Your task to perform on an android device: check out phone information Image 0: 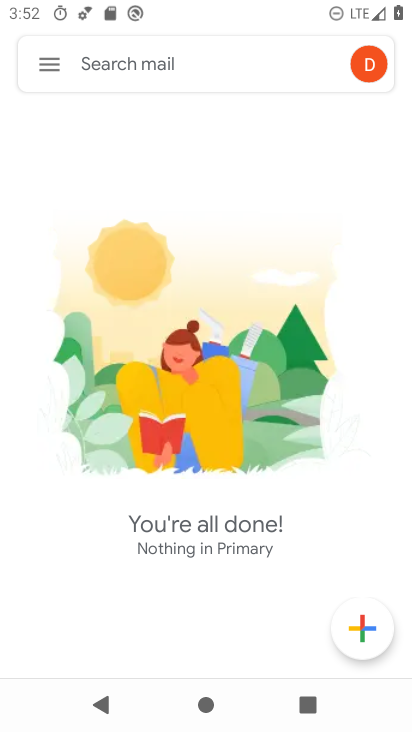
Step 0: press home button
Your task to perform on an android device: check out phone information Image 1: 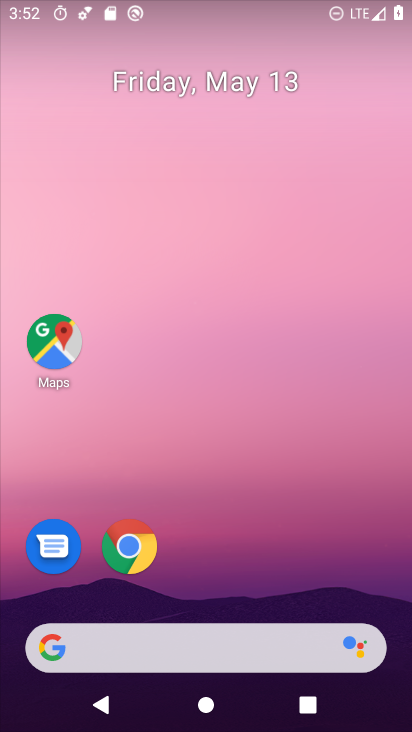
Step 1: drag from (240, 633) to (254, 215)
Your task to perform on an android device: check out phone information Image 2: 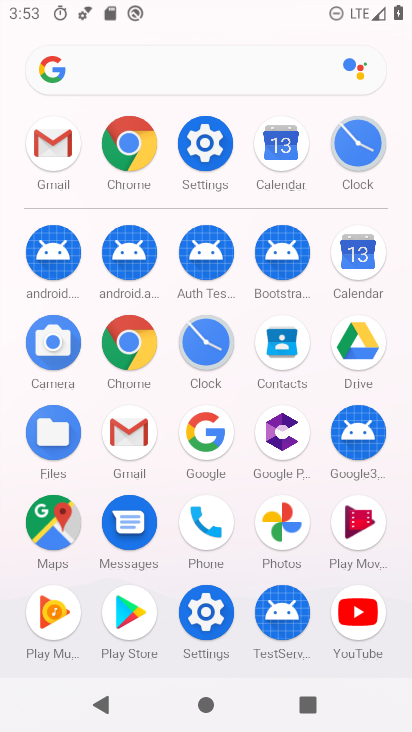
Step 2: click (216, 171)
Your task to perform on an android device: check out phone information Image 3: 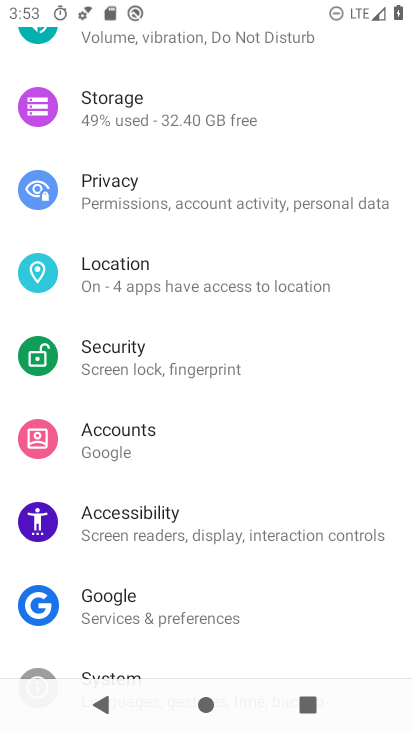
Step 3: drag from (228, 497) to (226, 158)
Your task to perform on an android device: check out phone information Image 4: 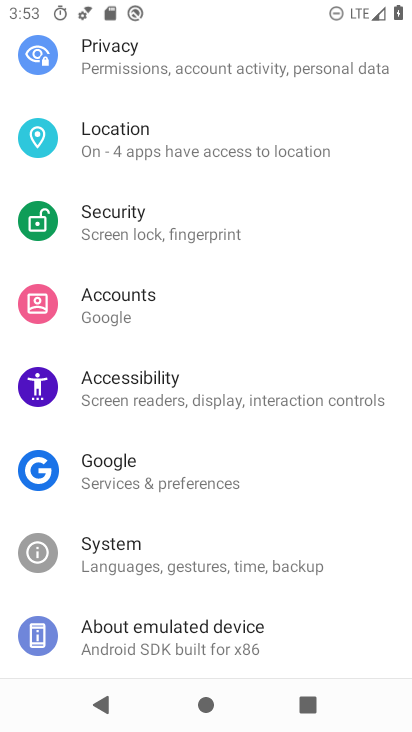
Step 4: drag from (174, 503) to (176, 231)
Your task to perform on an android device: check out phone information Image 5: 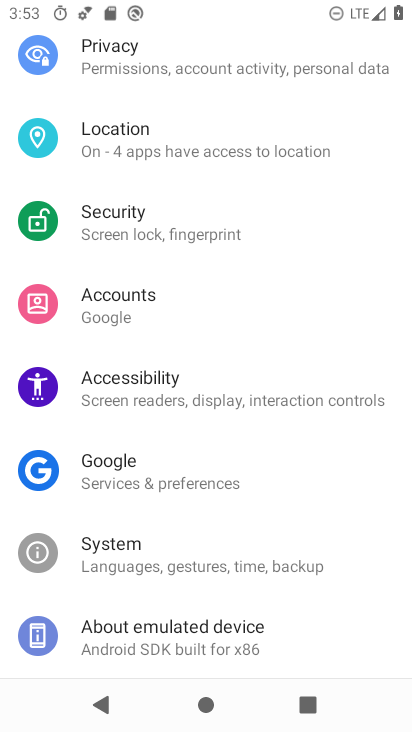
Step 5: click (168, 631)
Your task to perform on an android device: check out phone information Image 6: 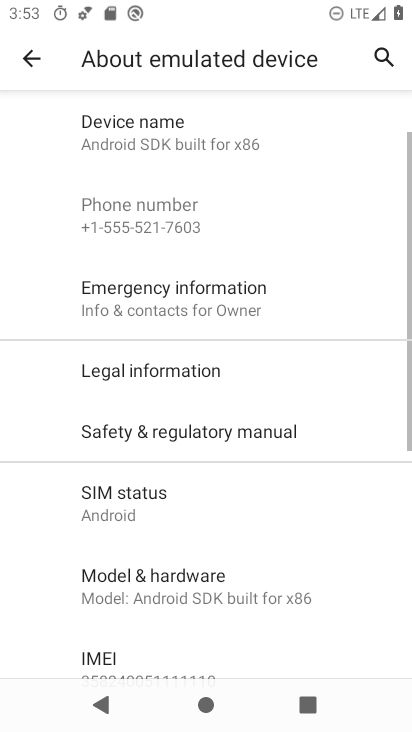
Step 6: task complete